Your task to perform on an android device: What's the weather? Image 0: 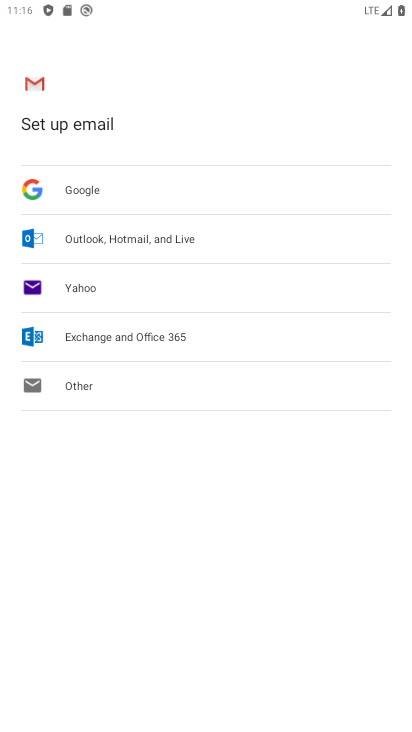
Step 0: press home button
Your task to perform on an android device: What's the weather? Image 1: 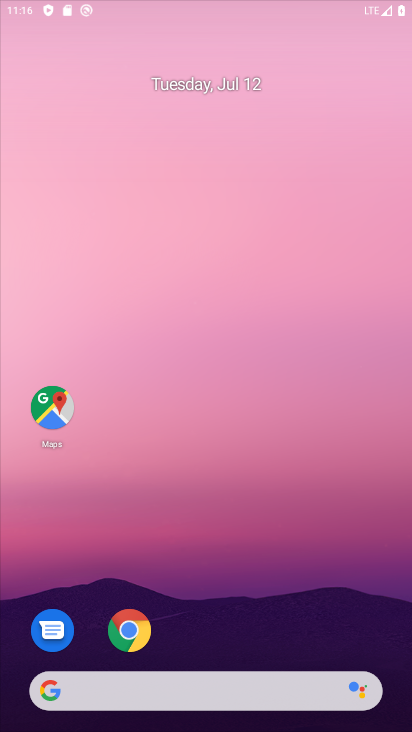
Step 1: drag from (397, 692) to (207, 58)
Your task to perform on an android device: What's the weather? Image 2: 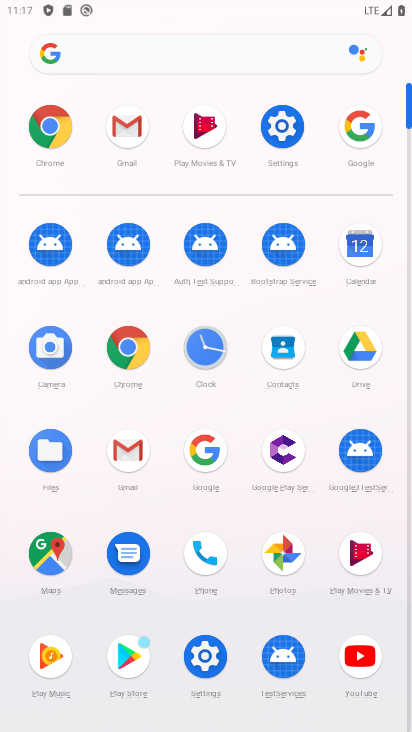
Step 2: click (205, 449)
Your task to perform on an android device: What's the weather? Image 3: 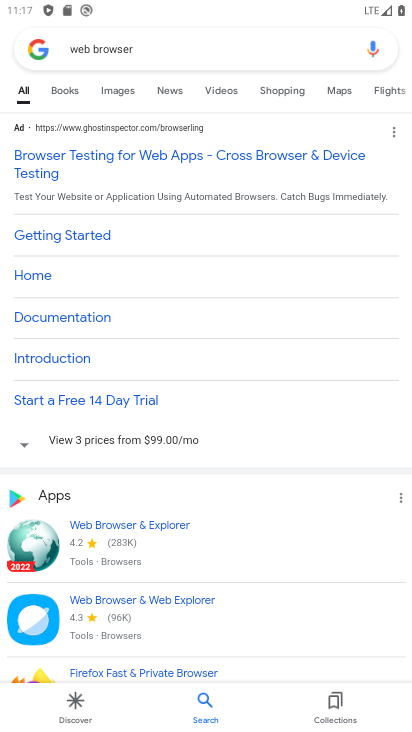
Step 3: press back button
Your task to perform on an android device: What's the weather? Image 4: 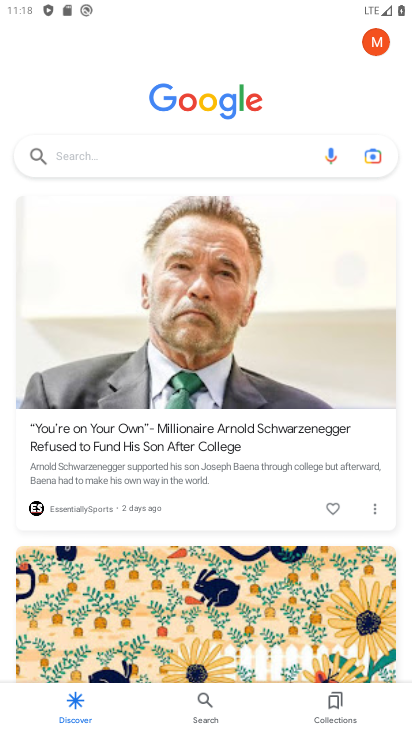
Step 4: click (112, 161)
Your task to perform on an android device: What's the weather? Image 5: 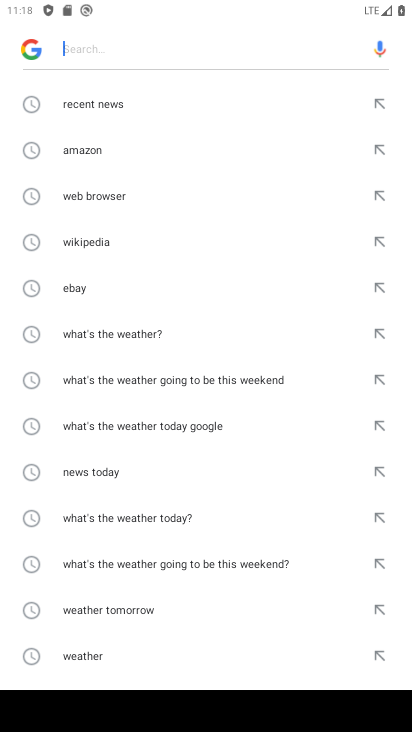
Step 5: click (119, 336)
Your task to perform on an android device: What's the weather? Image 6: 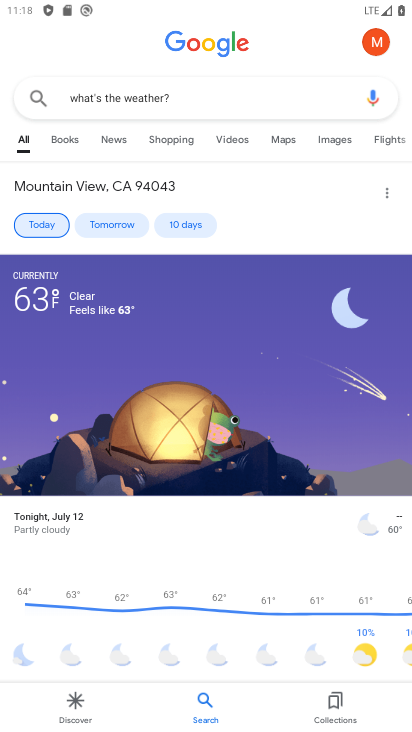
Step 6: task complete